Your task to perform on an android device: When is my next appointment? Image 0: 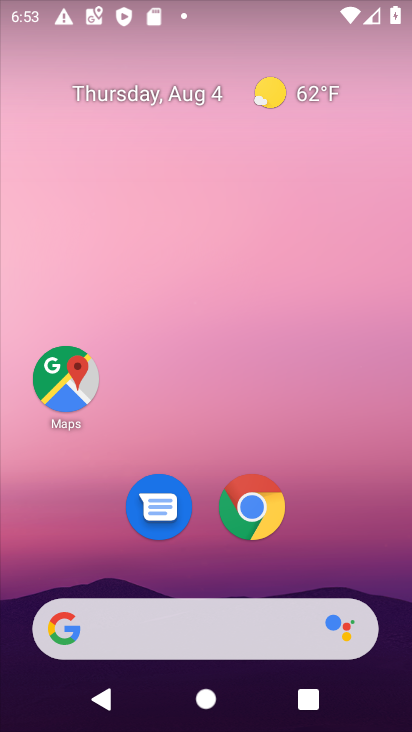
Step 0: drag from (341, 560) to (258, 15)
Your task to perform on an android device: When is my next appointment? Image 1: 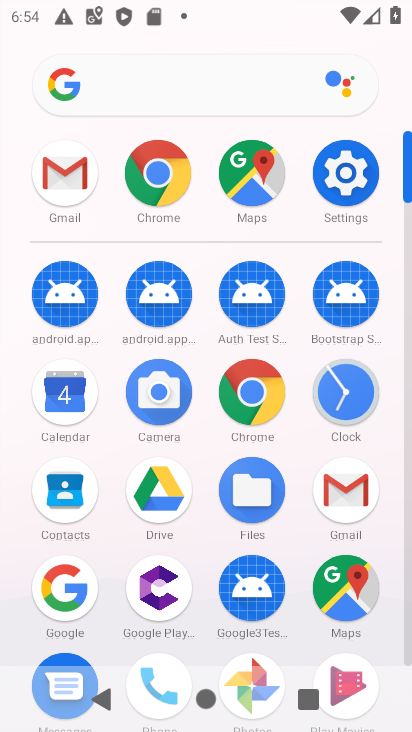
Step 1: click (61, 371)
Your task to perform on an android device: When is my next appointment? Image 2: 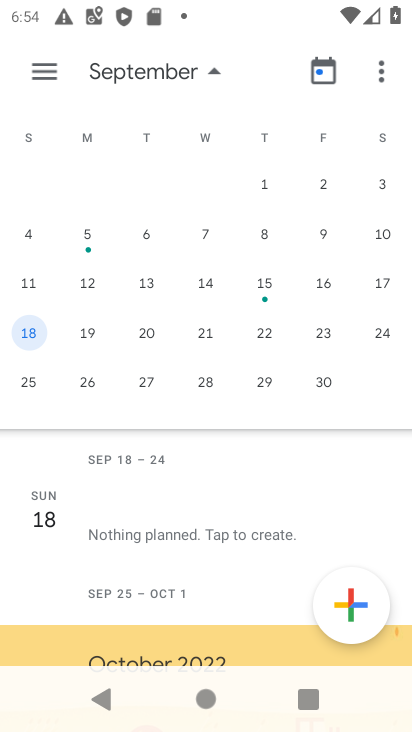
Step 2: task complete